Your task to perform on an android device: Go to network settings Image 0: 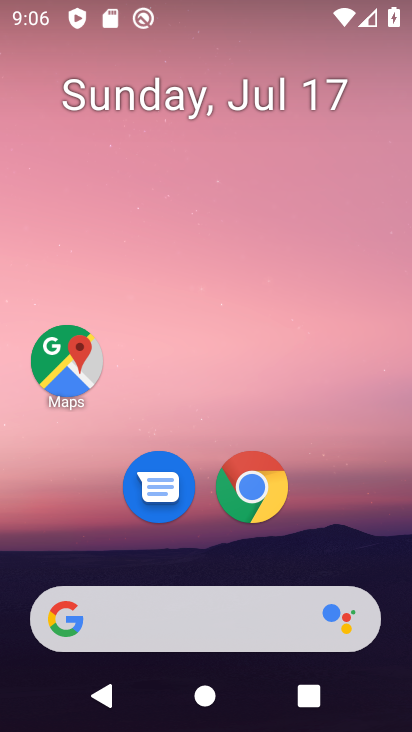
Step 0: press home button
Your task to perform on an android device: Go to network settings Image 1: 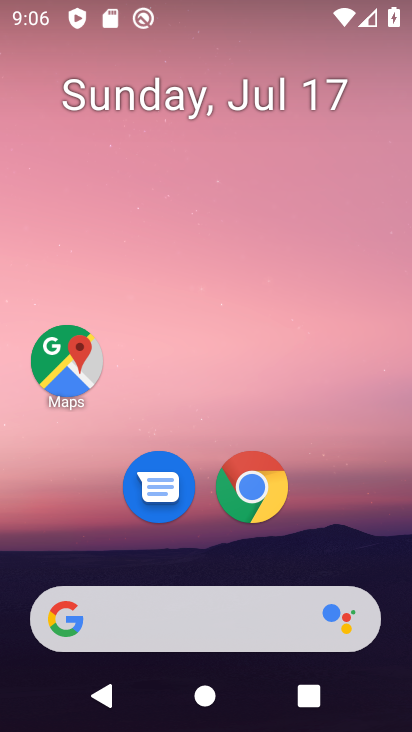
Step 1: drag from (339, 534) to (338, 12)
Your task to perform on an android device: Go to network settings Image 2: 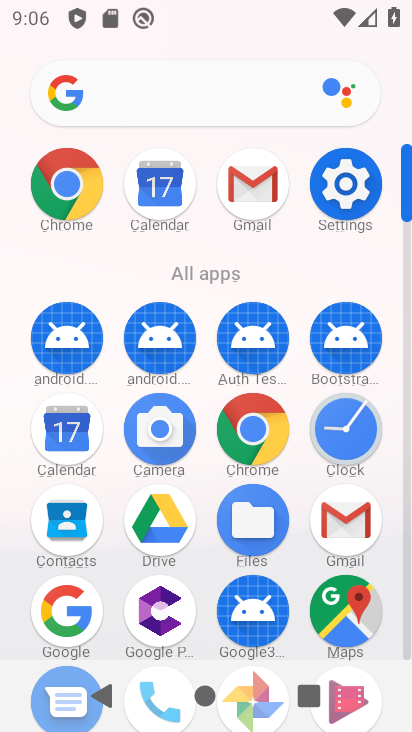
Step 2: click (360, 193)
Your task to perform on an android device: Go to network settings Image 3: 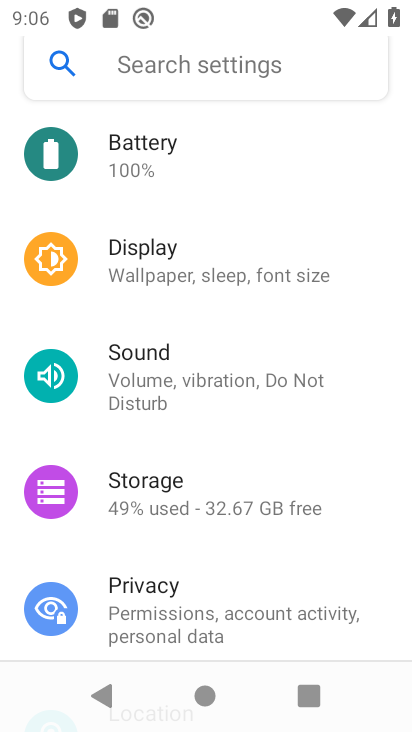
Step 3: drag from (223, 171) to (193, 710)
Your task to perform on an android device: Go to network settings Image 4: 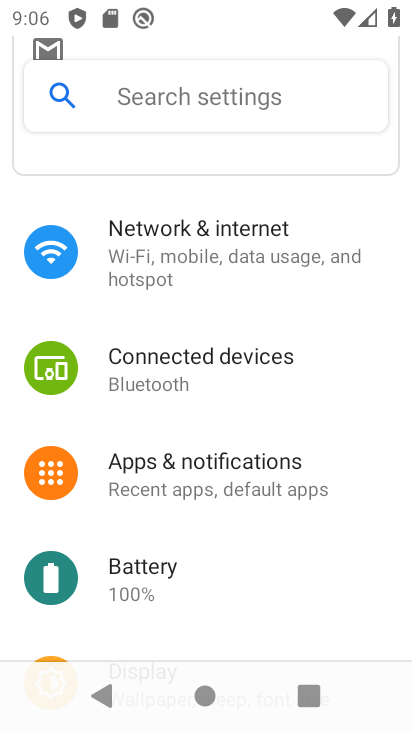
Step 4: click (208, 255)
Your task to perform on an android device: Go to network settings Image 5: 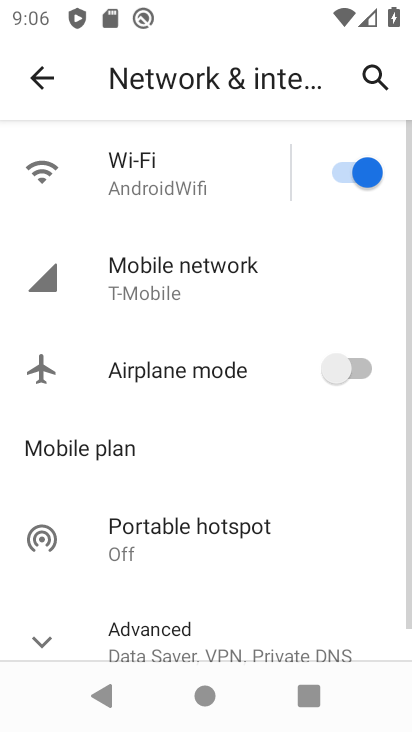
Step 5: task complete